Your task to perform on an android device: turn on the 24-hour format for clock Image 0: 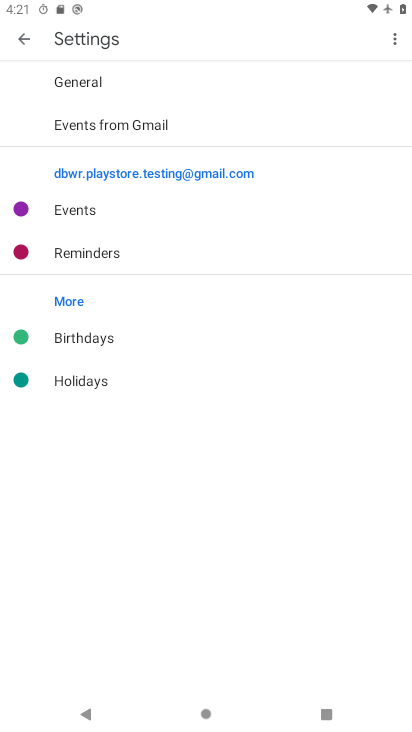
Step 0: press home button
Your task to perform on an android device: turn on the 24-hour format for clock Image 1: 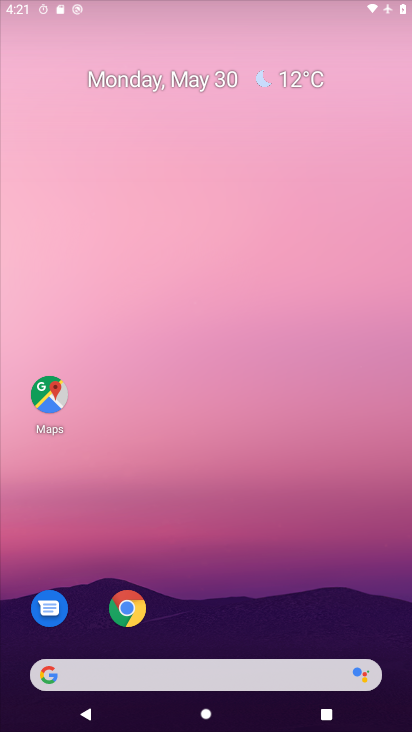
Step 1: drag from (294, 502) to (167, 4)
Your task to perform on an android device: turn on the 24-hour format for clock Image 2: 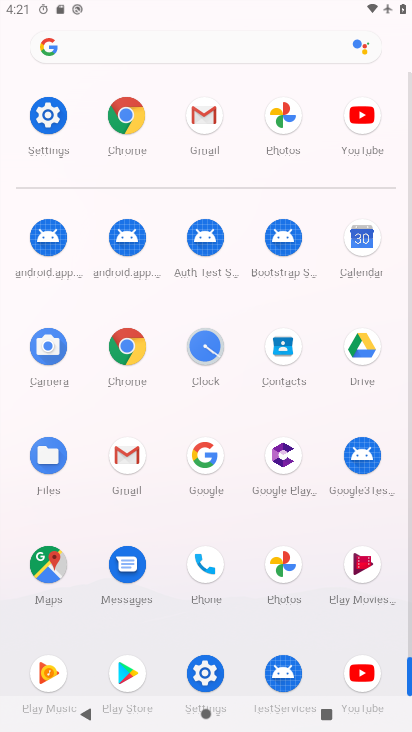
Step 2: click (208, 343)
Your task to perform on an android device: turn on the 24-hour format for clock Image 3: 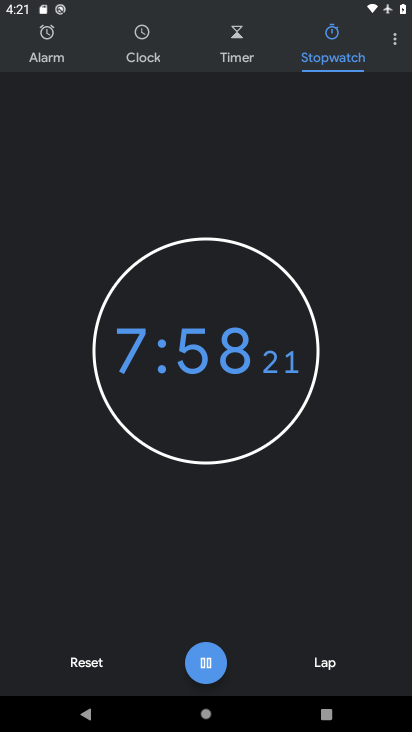
Step 3: click (387, 42)
Your task to perform on an android device: turn on the 24-hour format for clock Image 4: 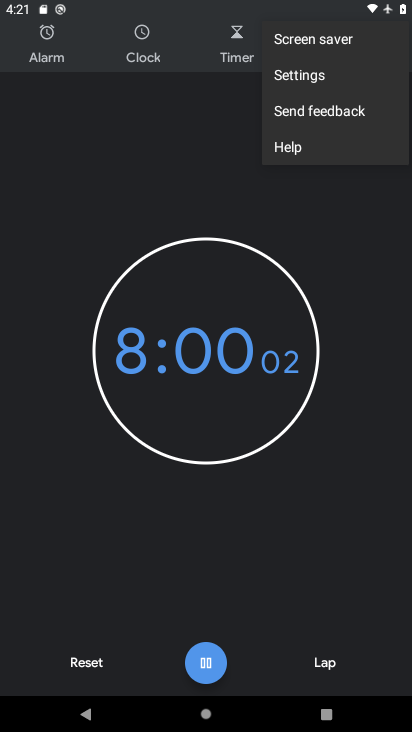
Step 4: click (331, 81)
Your task to perform on an android device: turn on the 24-hour format for clock Image 5: 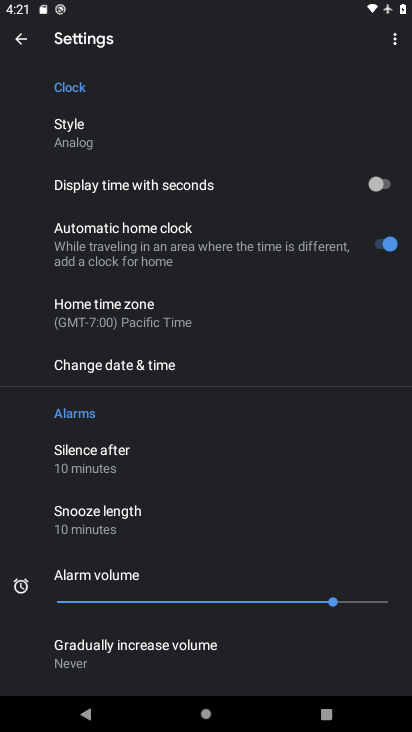
Step 5: click (152, 367)
Your task to perform on an android device: turn on the 24-hour format for clock Image 6: 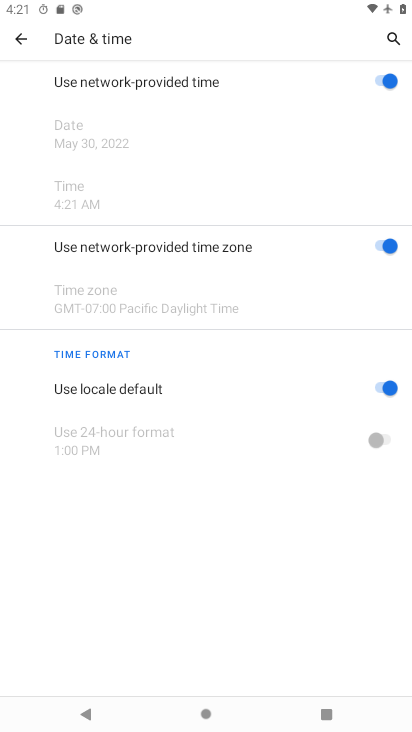
Step 6: click (377, 439)
Your task to perform on an android device: turn on the 24-hour format for clock Image 7: 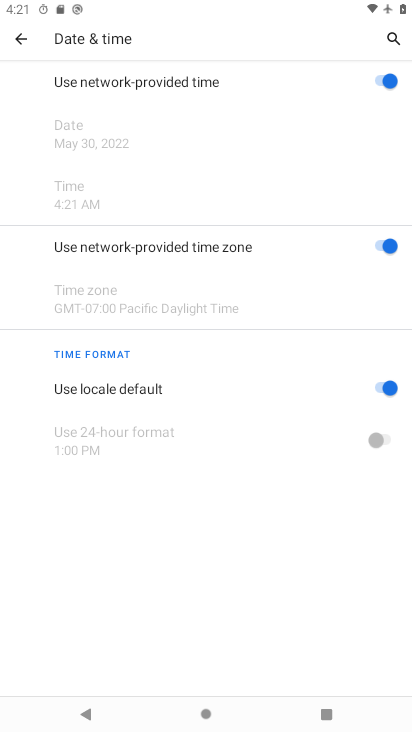
Step 7: click (376, 386)
Your task to perform on an android device: turn on the 24-hour format for clock Image 8: 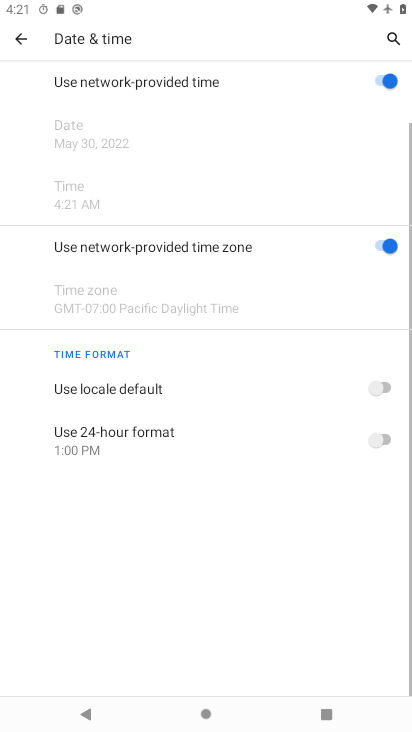
Step 8: click (385, 429)
Your task to perform on an android device: turn on the 24-hour format for clock Image 9: 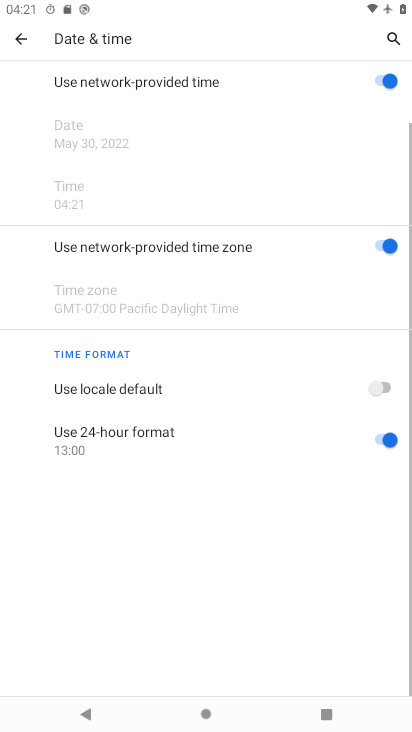
Step 9: task complete